Your task to perform on an android device: Do I have any events this weekend? Image 0: 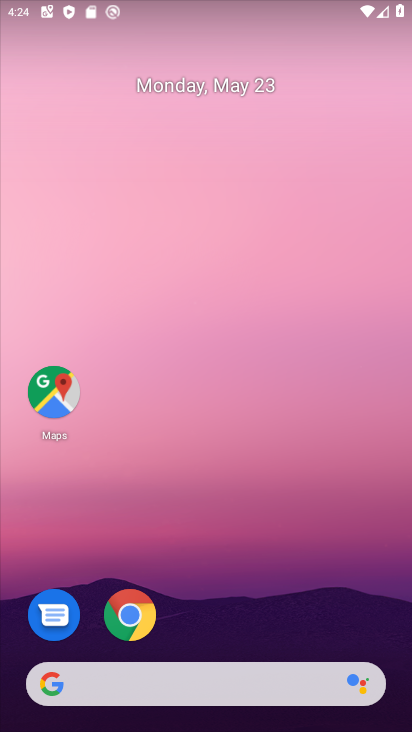
Step 0: drag from (227, 584) to (307, 104)
Your task to perform on an android device: Do I have any events this weekend? Image 1: 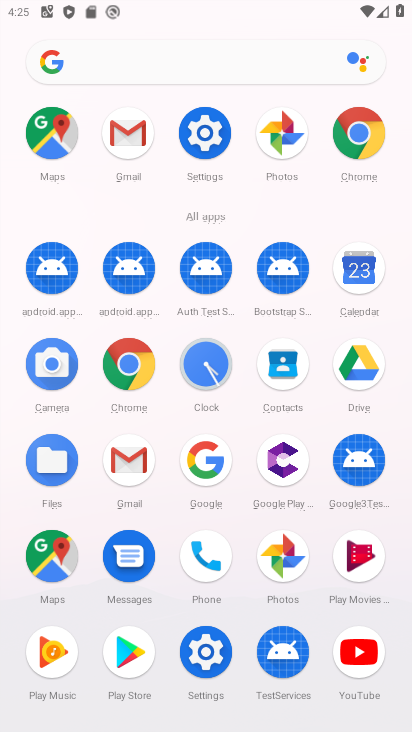
Step 1: click (351, 264)
Your task to perform on an android device: Do I have any events this weekend? Image 2: 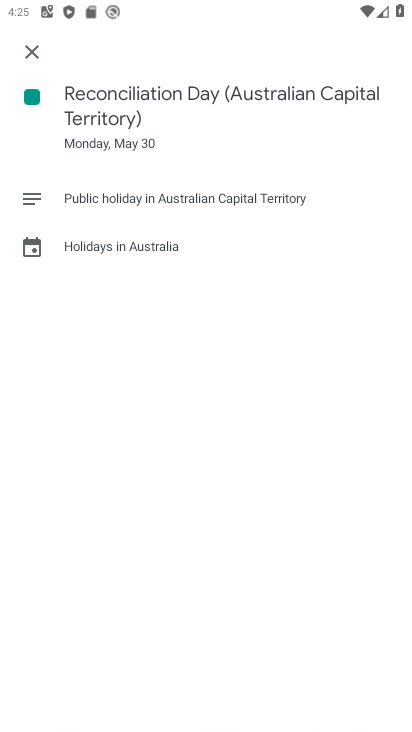
Step 2: click (29, 46)
Your task to perform on an android device: Do I have any events this weekend? Image 3: 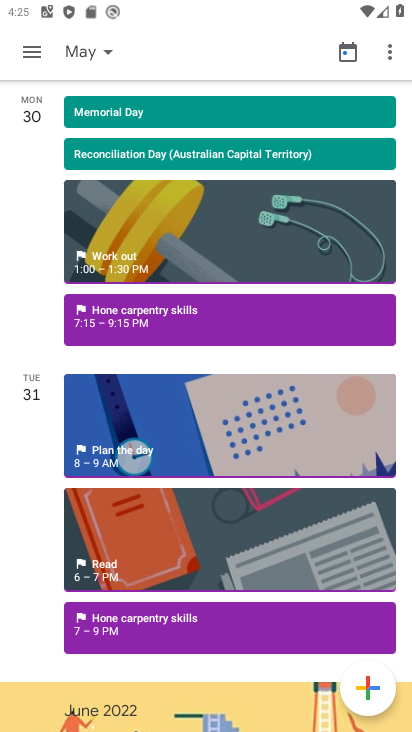
Step 3: drag from (201, 172) to (204, 668)
Your task to perform on an android device: Do I have any events this weekend? Image 4: 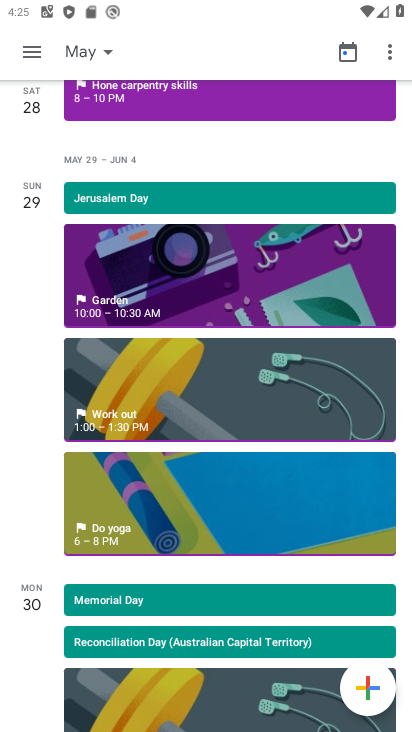
Step 4: click (142, 200)
Your task to perform on an android device: Do I have any events this weekend? Image 5: 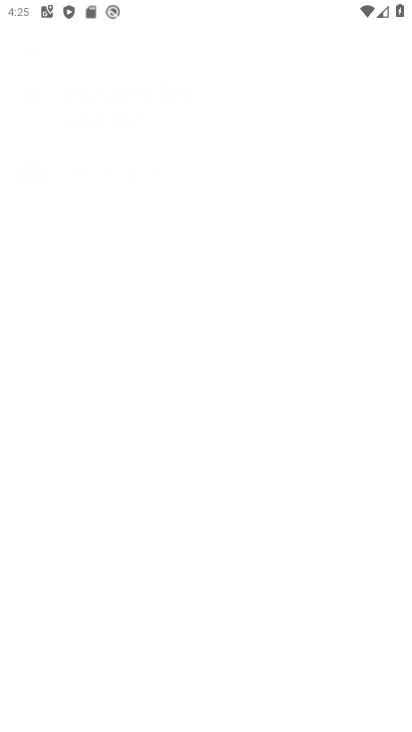
Step 5: task complete